Your task to perform on an android device: Open eBay Image 0: 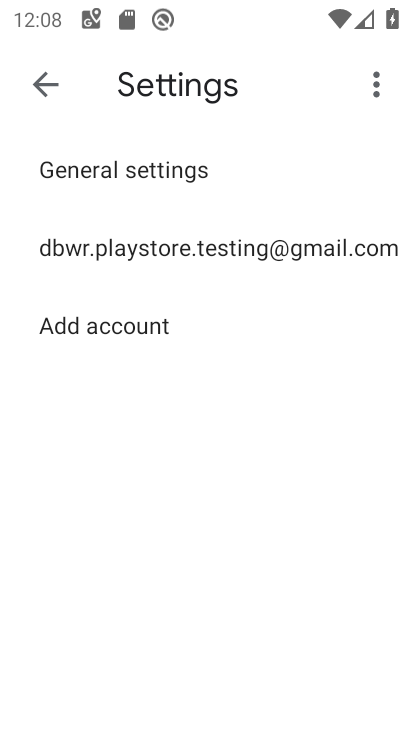
Step 0: click (218, 493)
Your task to perform on an android device: Open eBay Image 1: 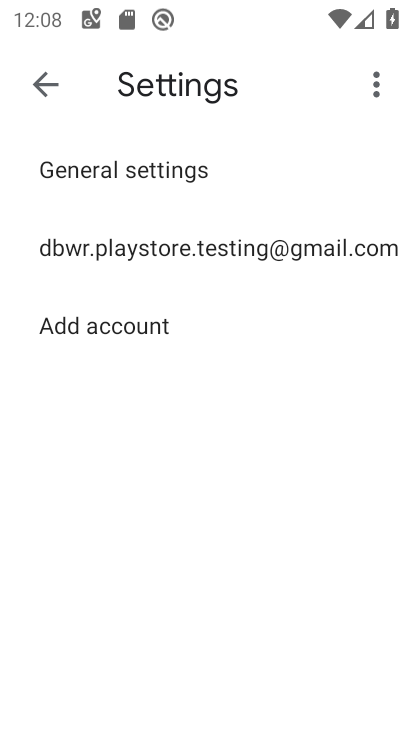
Step 1: press home button
Your task to perform on an android device: Open eBay Image 2: 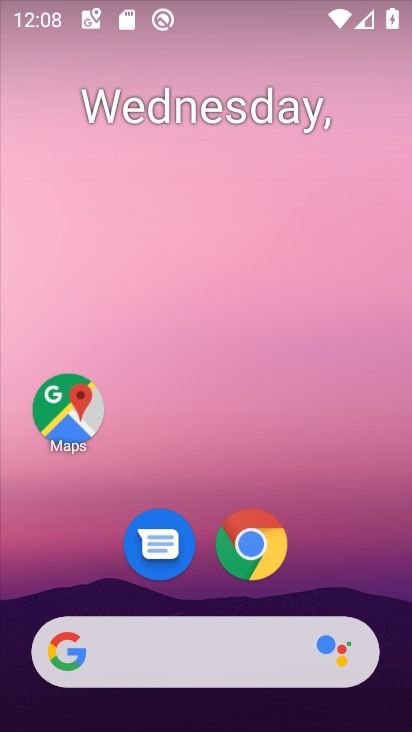
Step 2: drag from (188, 413) to (152, 211)
Your task to perform on an android device: Open eBay Image 3: 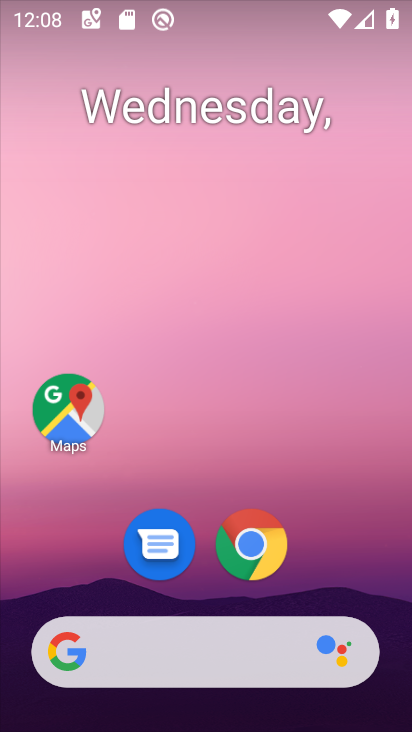
Step 3: drag from (230, 431) to (166, 110)
Your task to perform on an android device: Open eBay Image 4: 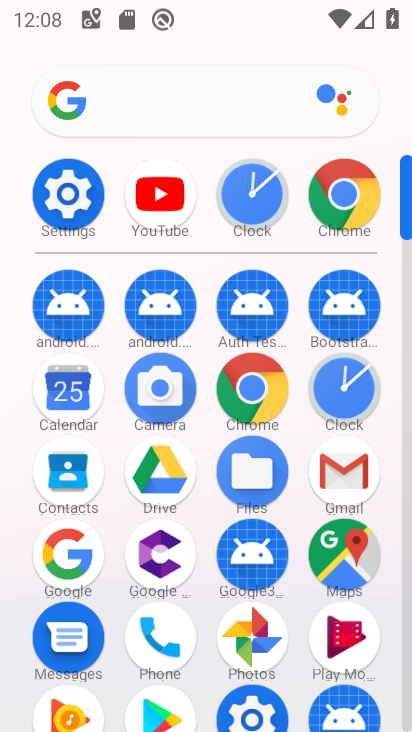
Step 4: click (249, 403)
Your task to perform on an android device: Open eBay Image 5: 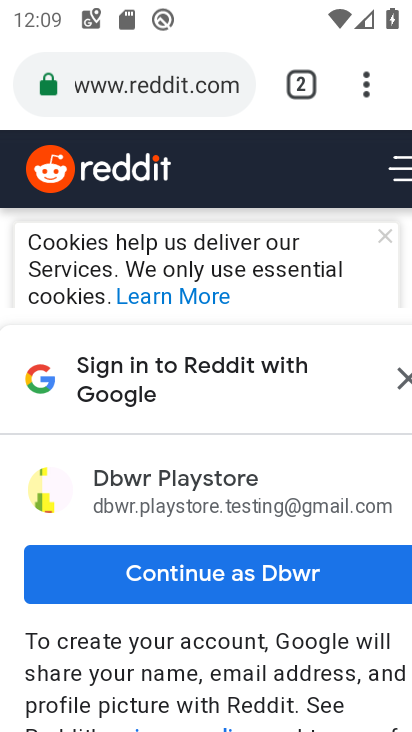
Step 5: click (308, 82)
Your task to perform on an android device: Open eBay Image 6: 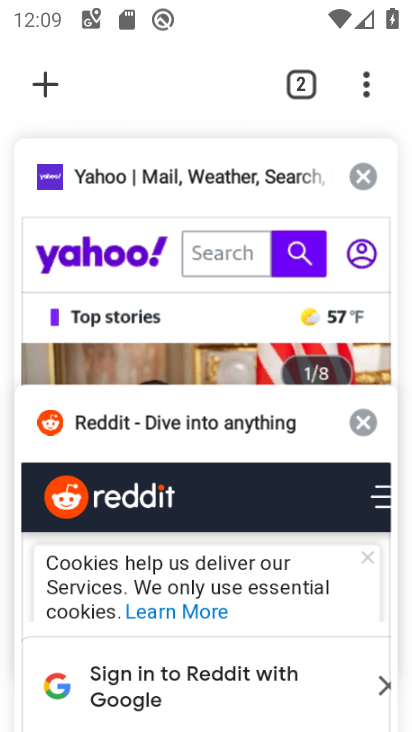
Step 6: click (53, 90)
Your task to perform on an android device: Open eBay Image 7: 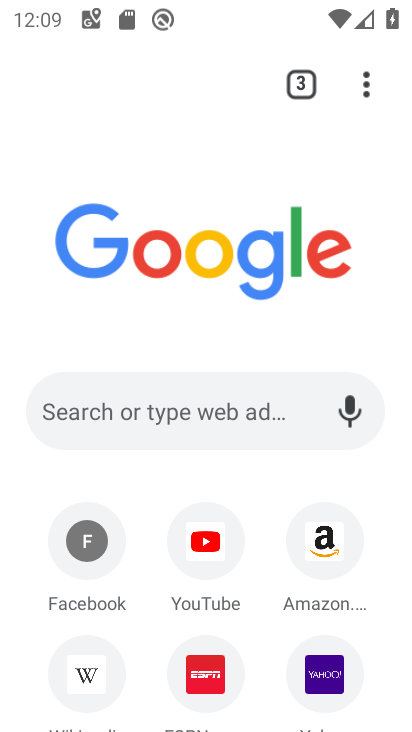
Step 7: click (160, 417)
Your task to perform on an android device: Open eBay Image 8: 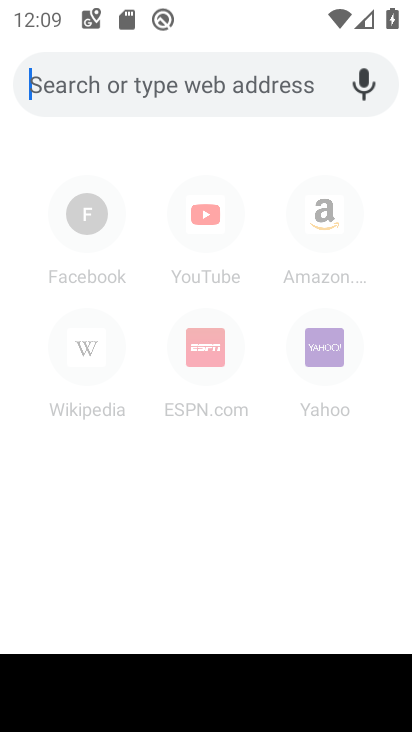
Step 8: type "ebay"
Your task to perform on an android device: Open eBay Image 9: 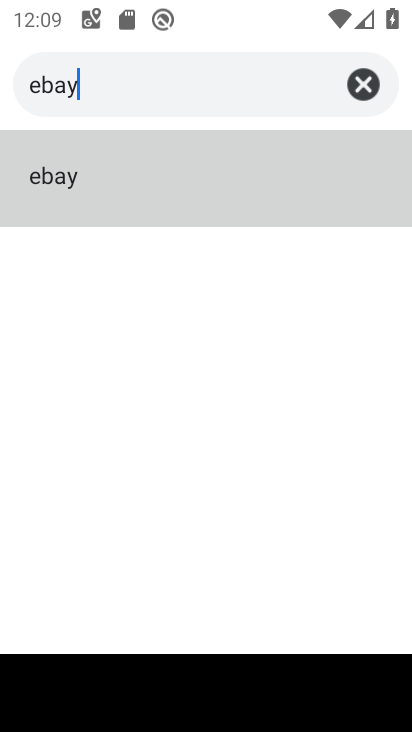
Step 9: type ""
Your task to perform on an android device: Open eBay Image 10: 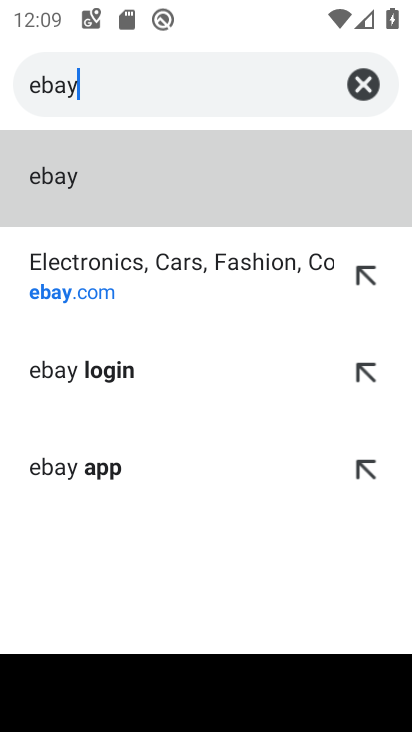
Step 10: click (101, 255)
Your task to perform on an android device: Open eBay Image 11: 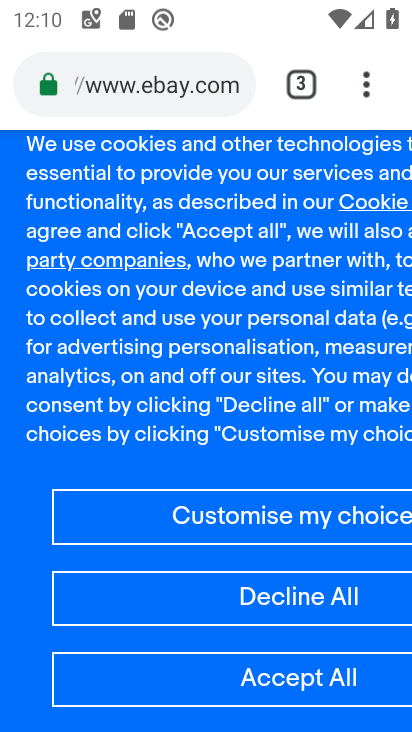
Step 11: task complete